Your task to perform on an android device: manage bookmarks in the chrome app Image 0: 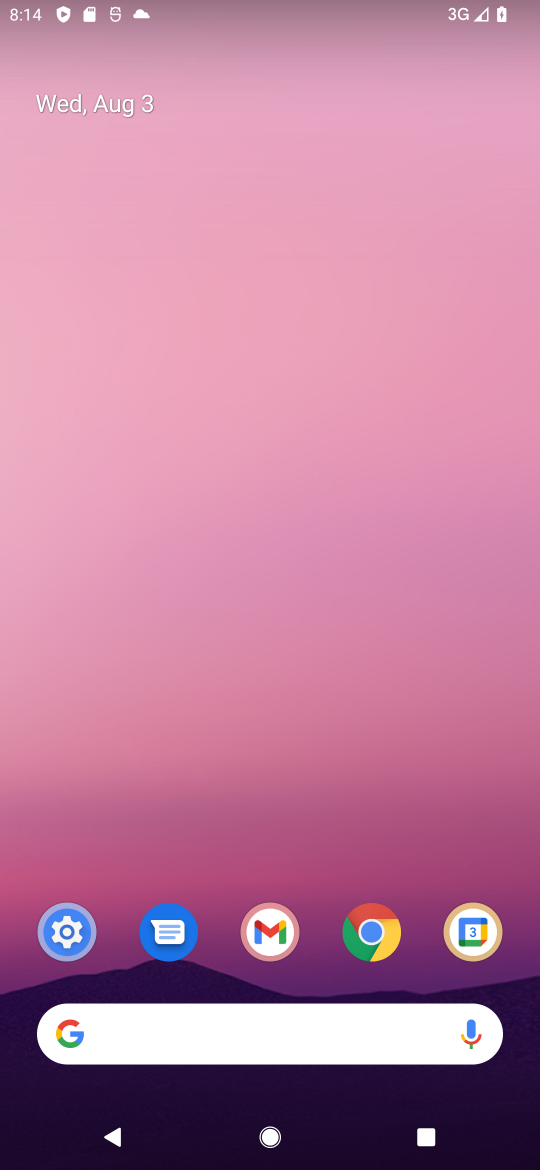
Step 0: click (373, 952)
Your task to perform on an android device: manage bookmarks in the chrome app Image 1: 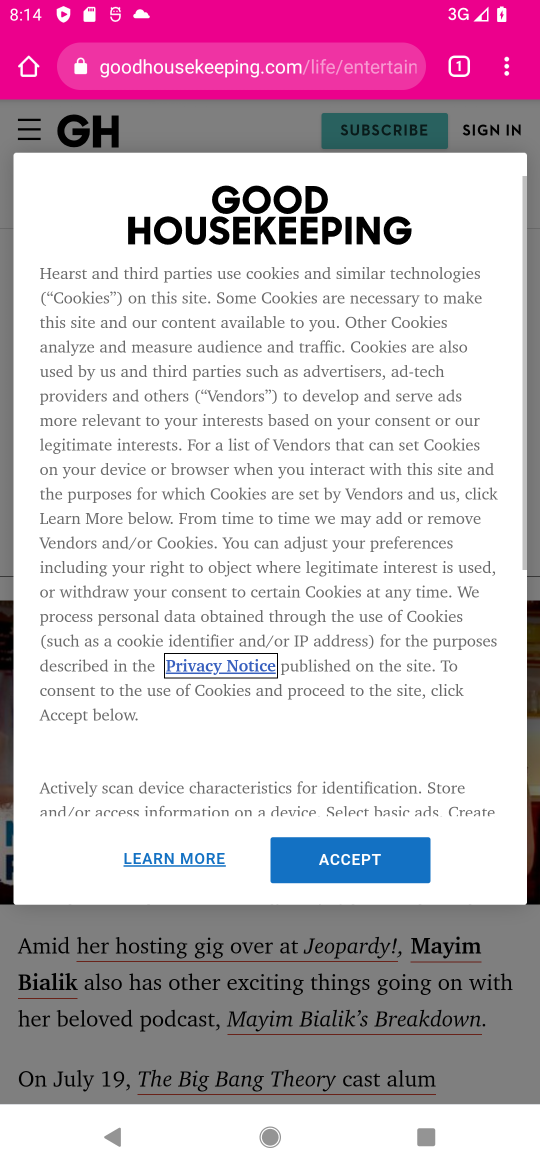
Step 1: click (511, 56)
Your task to perform on an android device: manage bookmarks in the chrome app Image 2: 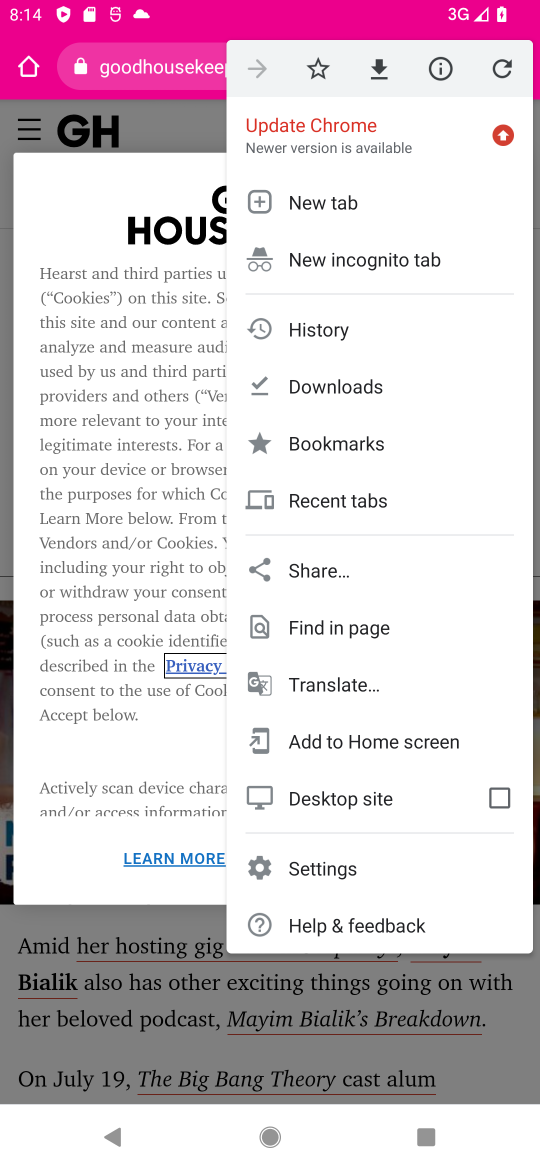
Step 2: click (390, 439)
Your task to perform on an android device: manage bookmarks in the chrome app Image 3: 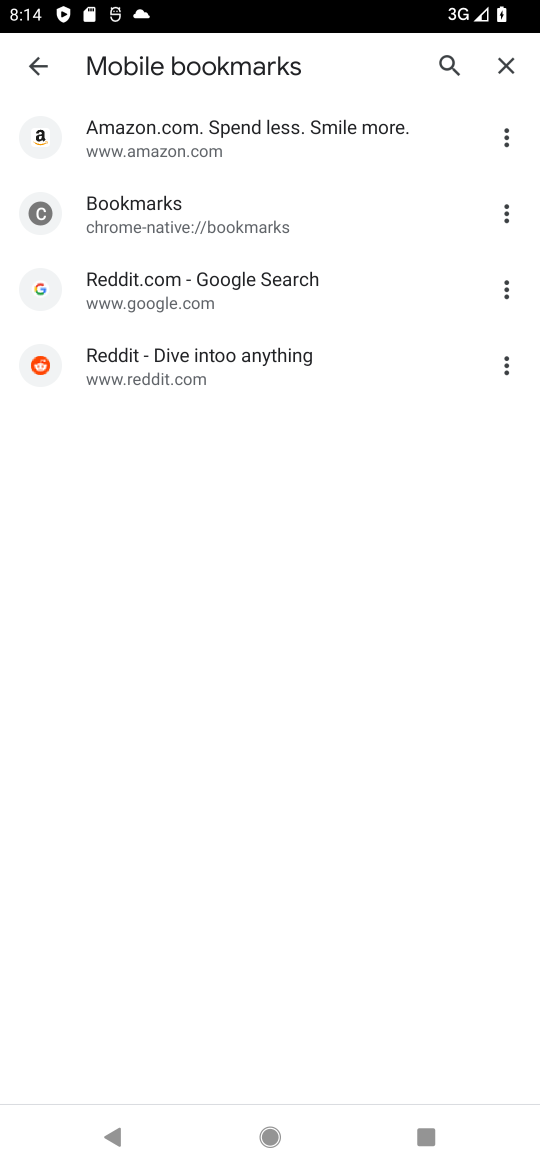
Step 3: click (505, 131)
Your task to perform on an android device: manage bookmarks in the chrome app Image 4: 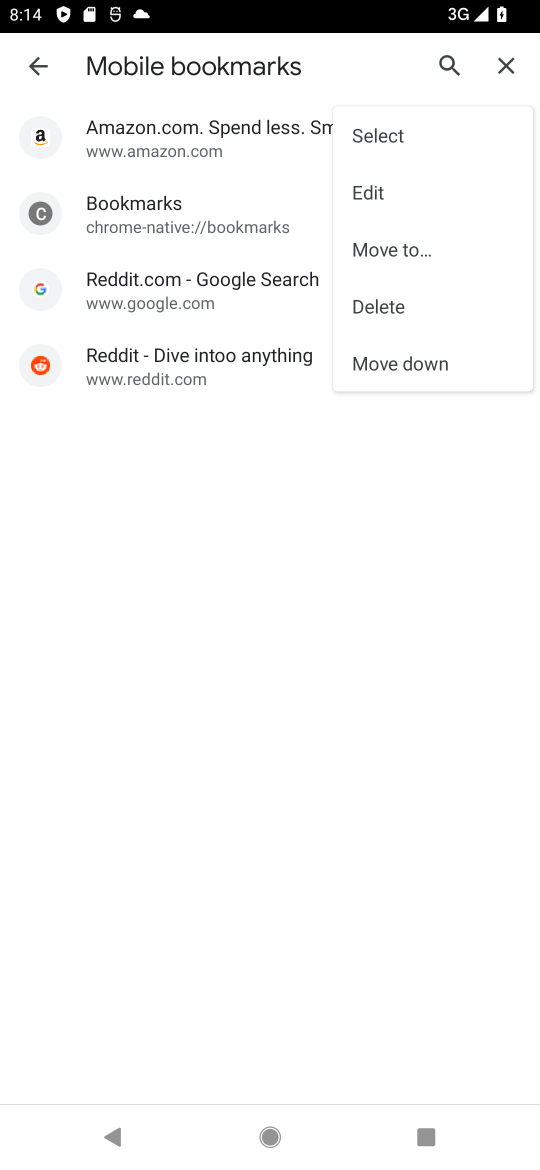
Step 4: click (449, 304)
Your task to perform on an android device: manage bookmarks in the chrome app Image 5: 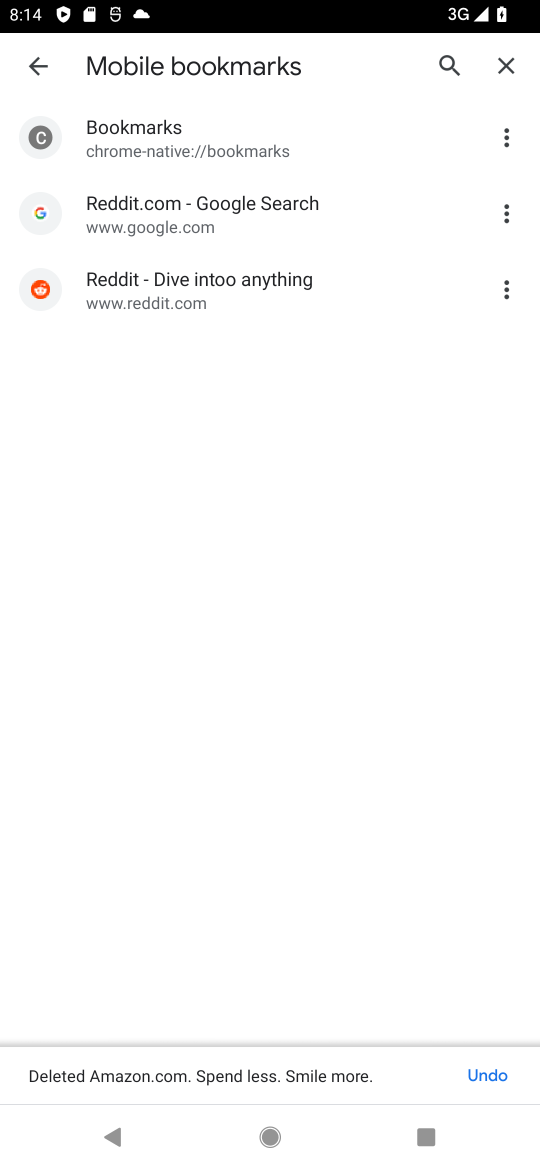
Step 5: task complete